Your task to perform on an android device: Go to display settings Image 0: 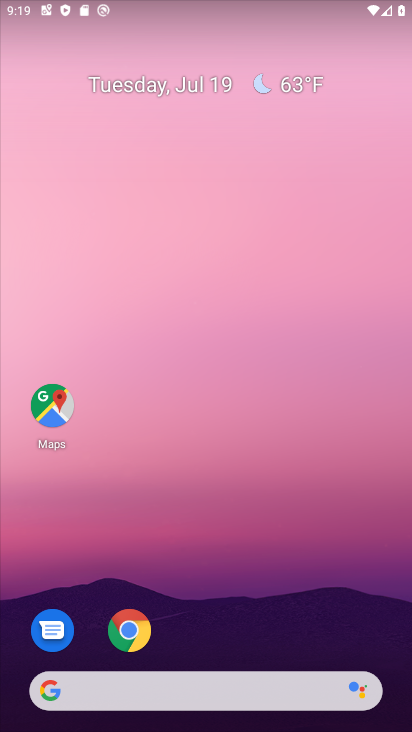
Step 0: drag from (208, 687) to (273, 168)
Your task to perform on an android device: Go to display settings Image 1: 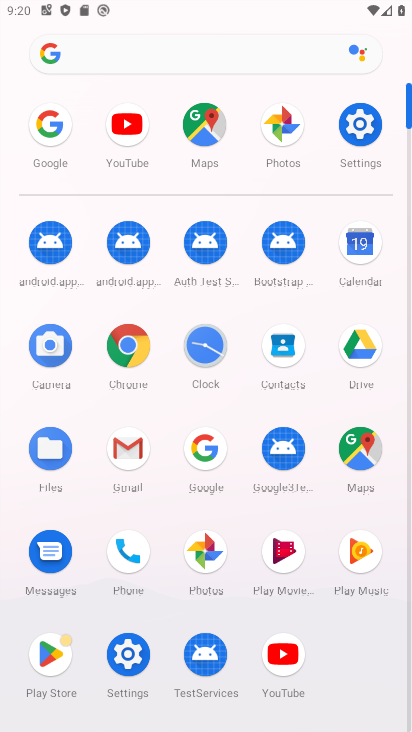
Step 1: click (358, 124)
Your task to perform on an android device: Go to display settings Image 2: 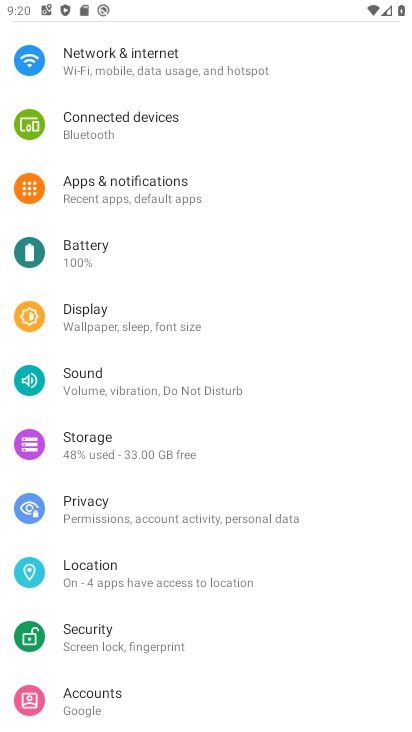
Step 2: click (80, 314)
Your task to perform on an android device: Go to display settings Image 3: 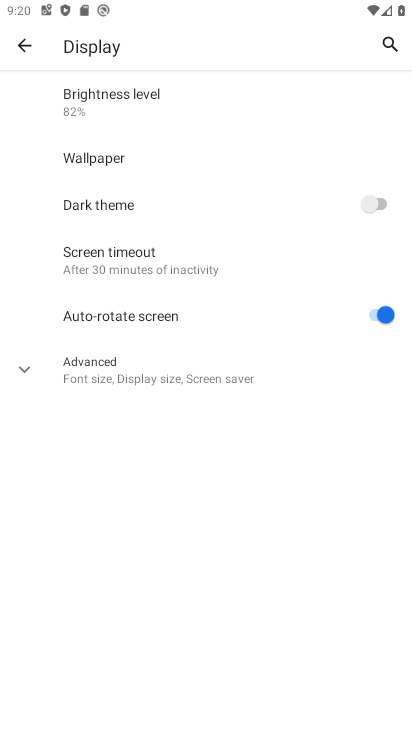
Step 3: task complete